Your task to perform on an android device: set an alarm Image 0: 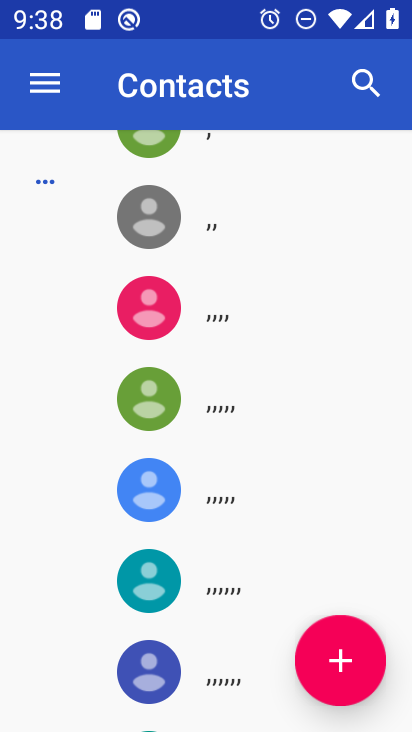
Step 0: press home button
Your task to perform on an android device: set an alarm Image 1: 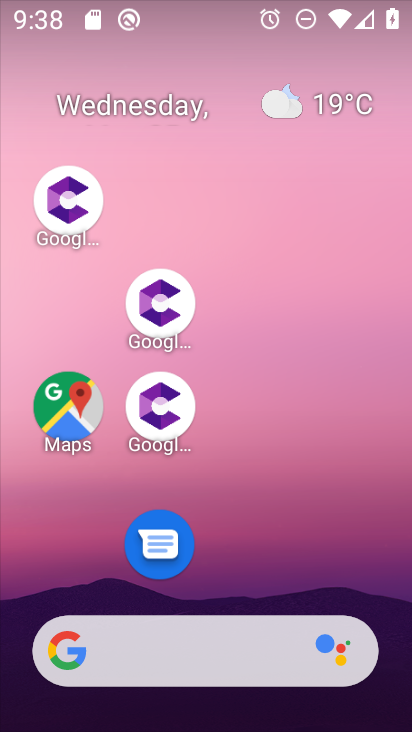
Step 1: drag from (287, 562) to (219, 200)
Your task to perform on an android device: set an alarm Image 2: 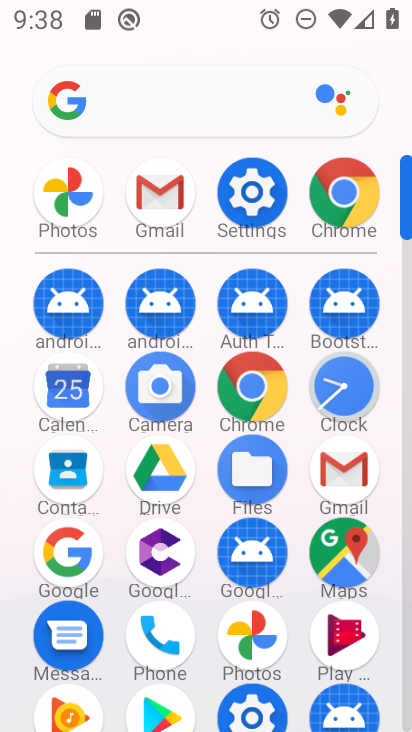
Step 2: click (343, 382)
Your task to perform on an android device: set an alarm Image 3: 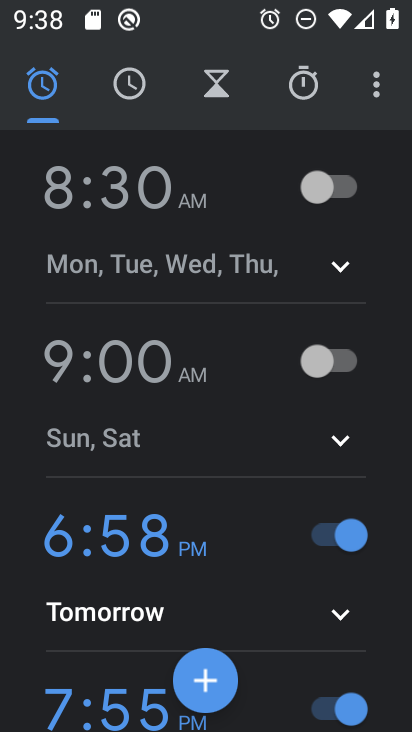
Step 3: click (203, 673)
Your task to perform on an android device: set an alarm Image 4: 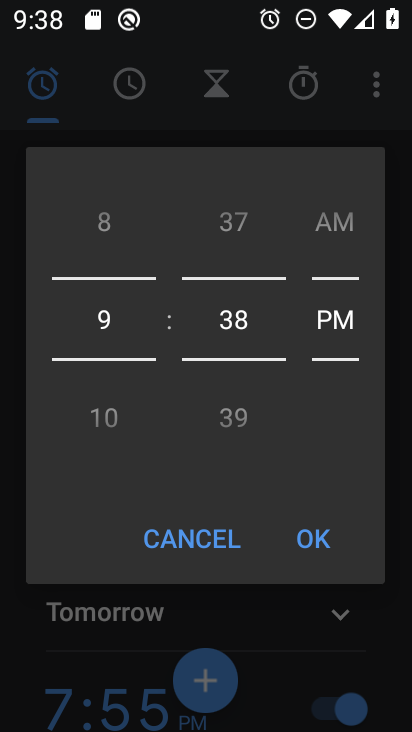
Step 4: click (310, 532)
Your task to perform on an android device: set an alarm Image 5: 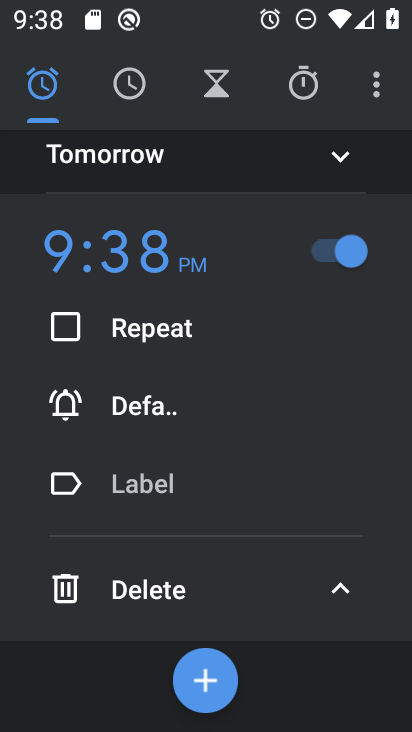
Step 5: task complete